Your task to perform on an android device: change notification settings in the gmail app Image 0: 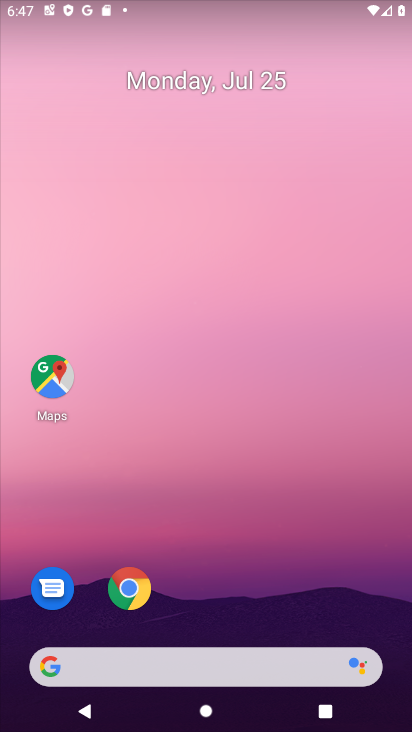
Step 0: drag from (262, 544) to (344, 214)
Your task to perform on an android device: change notification settings in the gmail app Image 1: 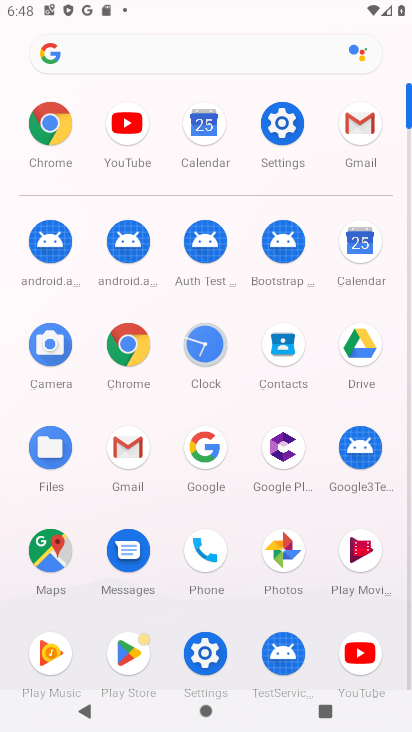
Step 1: click (134, 455)
Your task to perform on an android device: change notification settings in the gmail app Image 2: 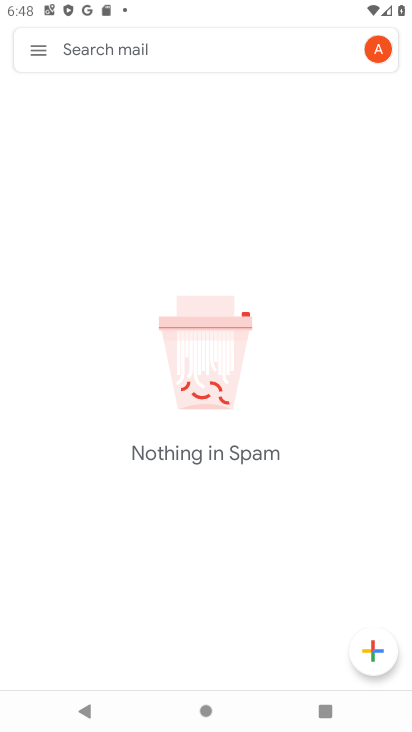
Step 2: click (39, 58)
Your task to perform on an android device: change notification settings in the gmail app Image 3: 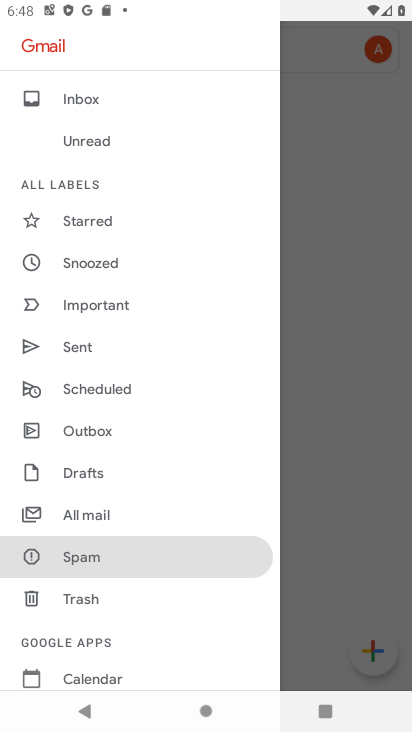
Step 3: drag from (219, 610) to (244, 428)
Your task to perform on an android device: change notification settings in the gmail app Image 4: 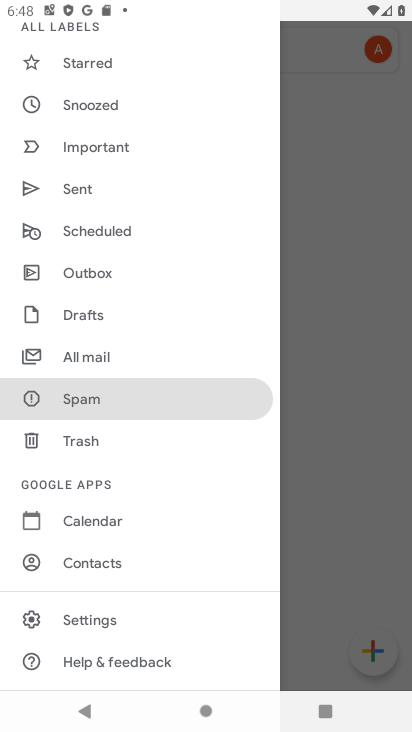
Step 4: click (93, 624)
Your task to perform on an android device: change notification settings in the gmail app Image 5: 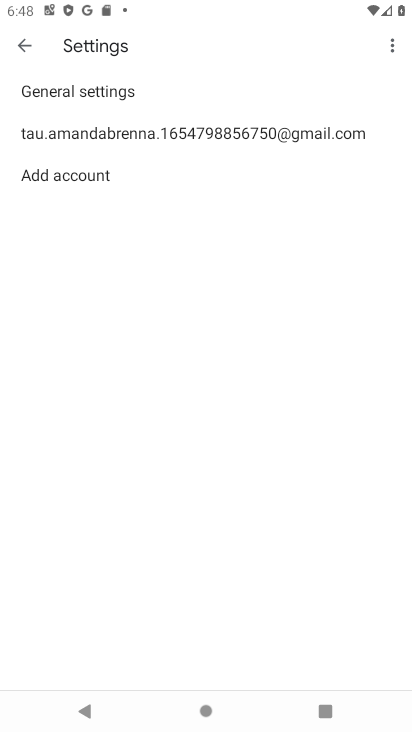
Step 5: click (22, 53)
Your task to perform on an android device: change notification settings in the gmail app Image 6: 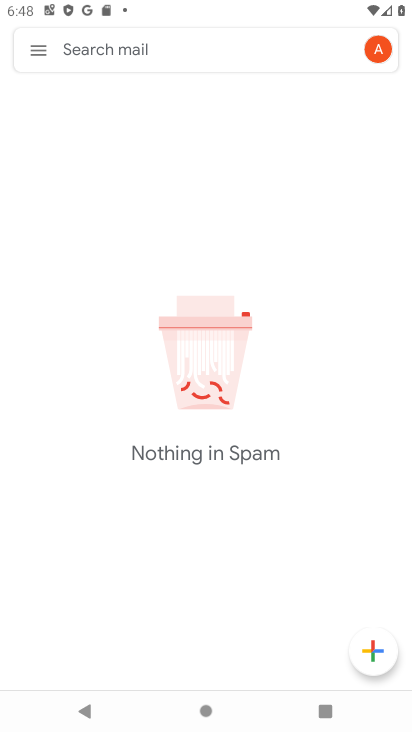
Step 6: task complete